Your task to perform on an android device: turn off location history Image 0: 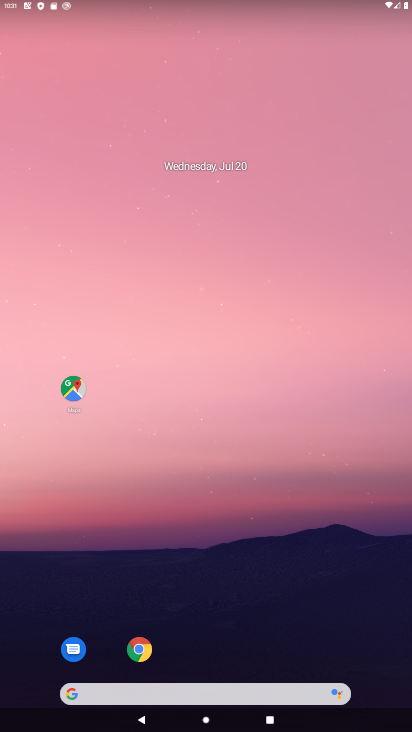
Step 0: drag from (216, 650) to (181, 171)
Your task to perform on an android device: turn off location history Image 1: 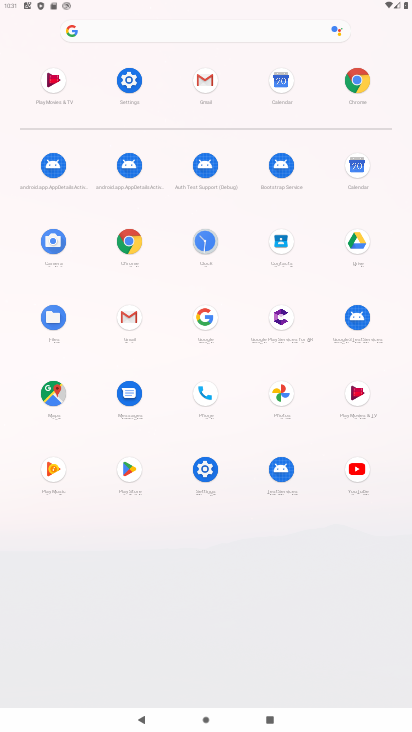
Step 1: click (138, 106)
Your task to perform on an android device: turn off location history Image 2: 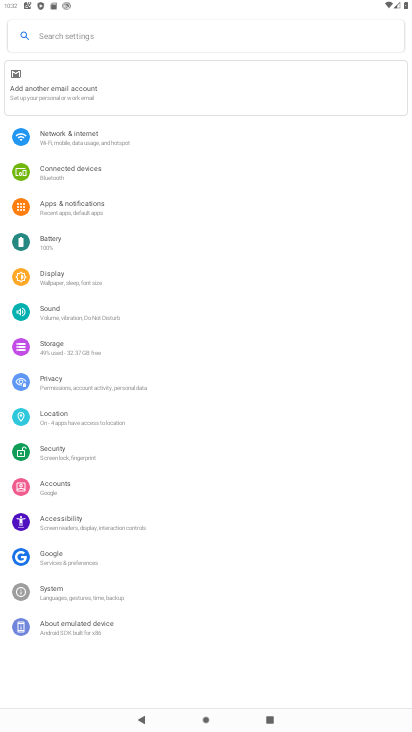
Step 2: click (180, 418)
Your task to perform on an android device: turn off location history Image 3: 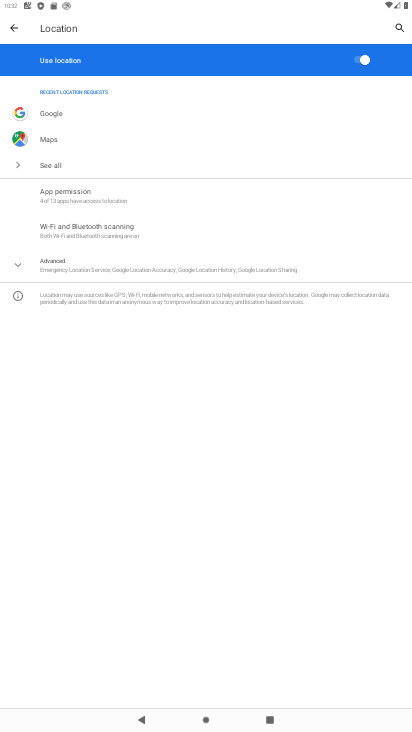
Step 3: click (166, 270)
Your task to perform on an android device: turn off location history Image 4: 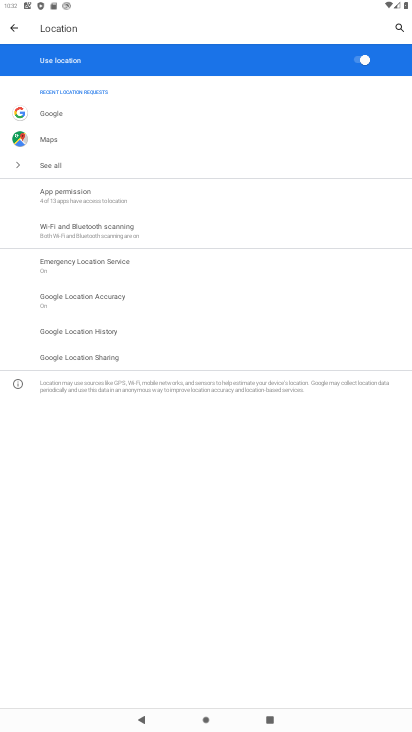
Step 4: click (116, 323)
Your task to perform on an android device: turn off location history Image 5: 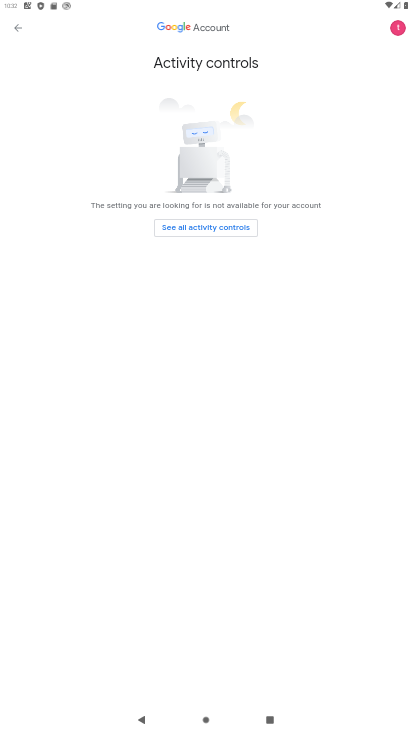
Step 5: task complete